Your task to perform on an android device: turn off translation in the chrome app Image 0: 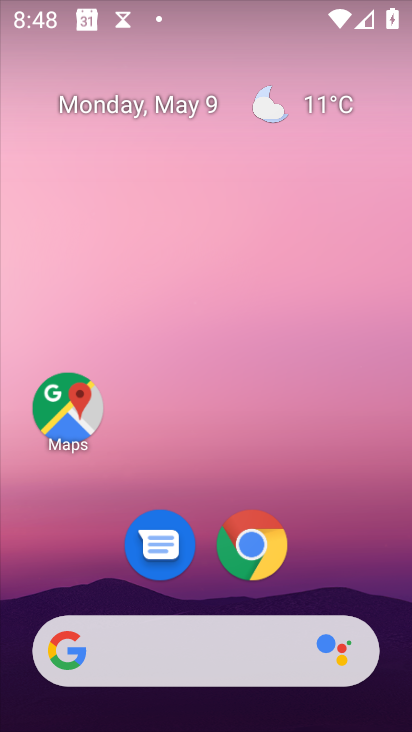
Step 0: click (248, 543)
Your task to perform on an android device: turn off translation in the chrome app Image 1: 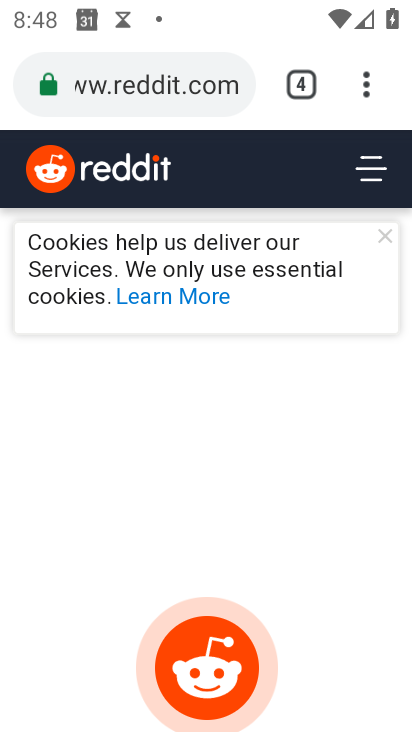
Step 1: click (367, 95)
Your task to perform on an android device: turn off translation in the chrome app Image 2: 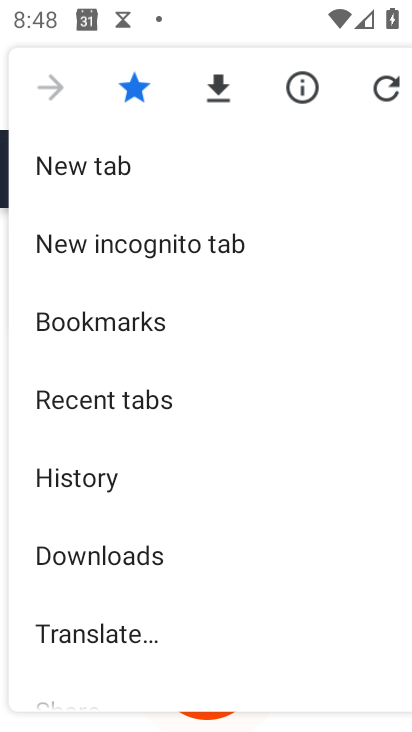
Step 2: drag from (202, 588) to (199, 238)
Your task to perform on an android device: turn off translation in the chrome app Image 3: 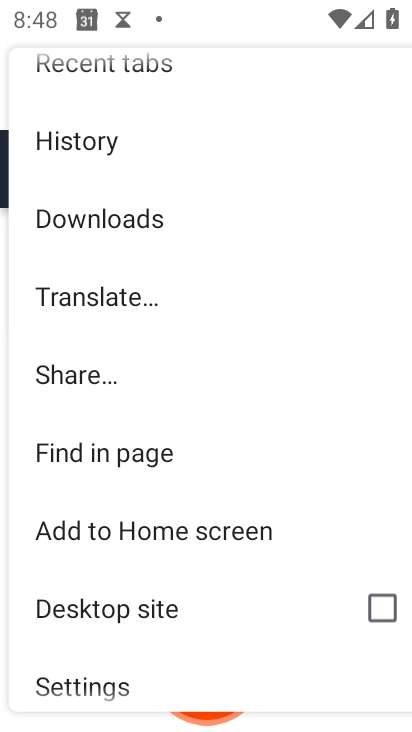
Step 3: click (99, 677)
Your task to perform on an android device: turn off translation in the chrome app Image 4: 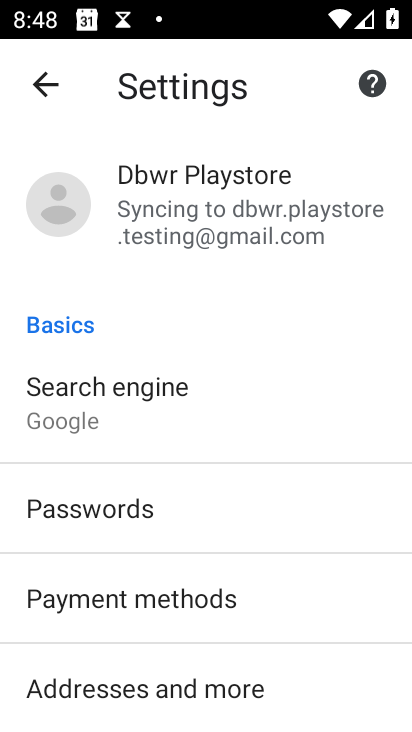
Step 4: drag from (154, 625) to (164, 313)
Your task to perform on an android device: turn off translation in the chrome app Image 5: 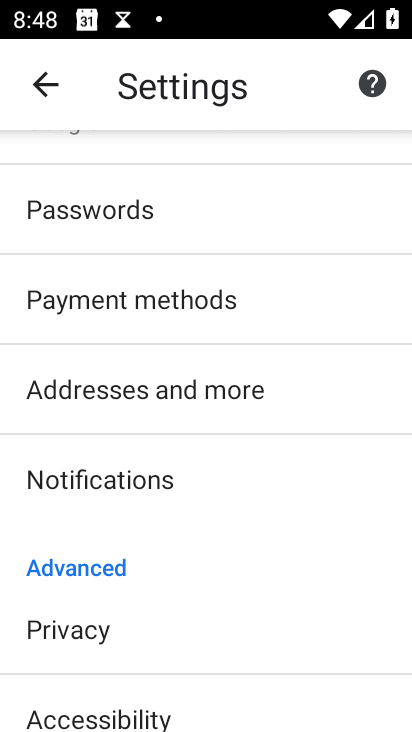
Step 5: drag from (126, 682) to (134, 286)
Your task to perform on an android device: turn off translation in the chrome app Image 6: 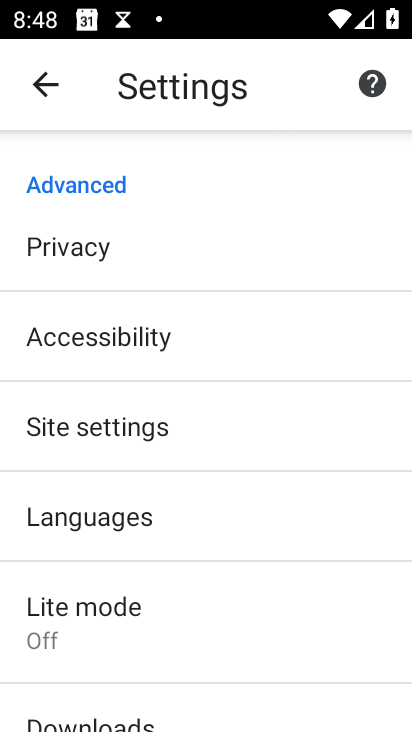
Step 6: click (90, 511)
Your task to perform on an android device: turn off translation in the chrome app Image 7: 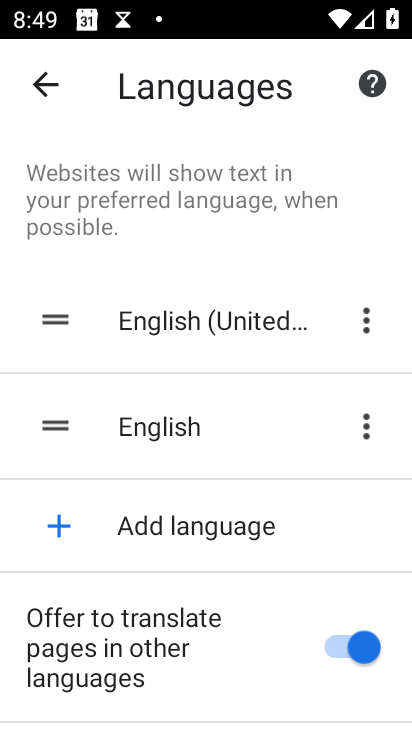
Step 7: click (338, 645)
Your task to perform on an android device: turn off translation in the chrome app Image 8: 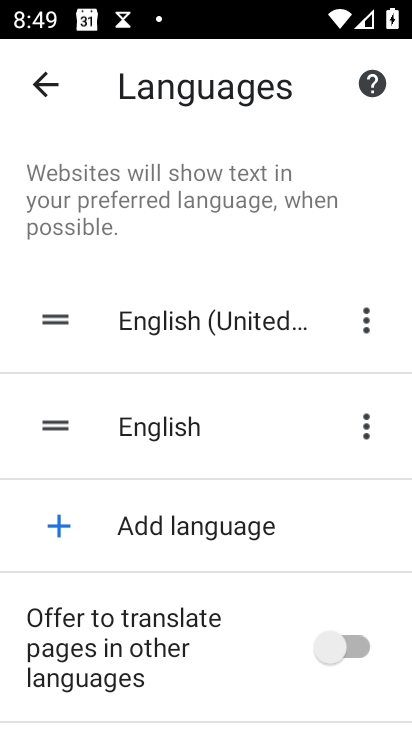
Step 8: task complete